Your task to perform on an android device: turn off wifi Image 0: 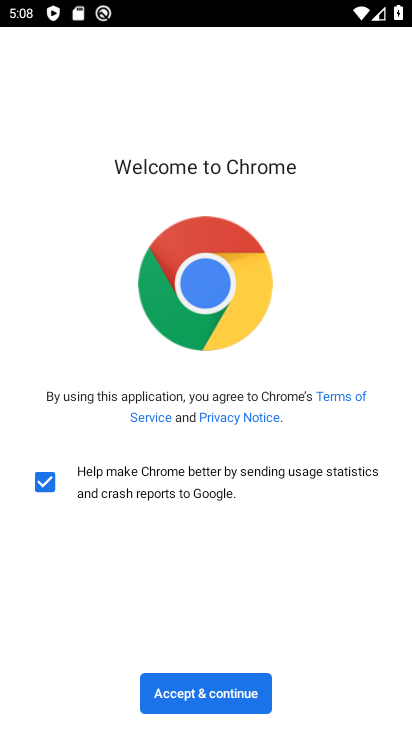
Step 0: press back button
Your task to perform on an android device: turn off wifi Image 1: 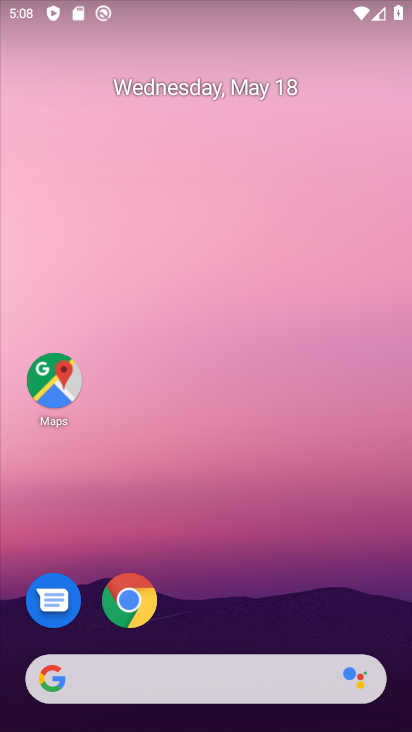
Step 1: drag from (235, 576) to (232, 118)
Your task to perform on an android device: turn off wifi Image 2: 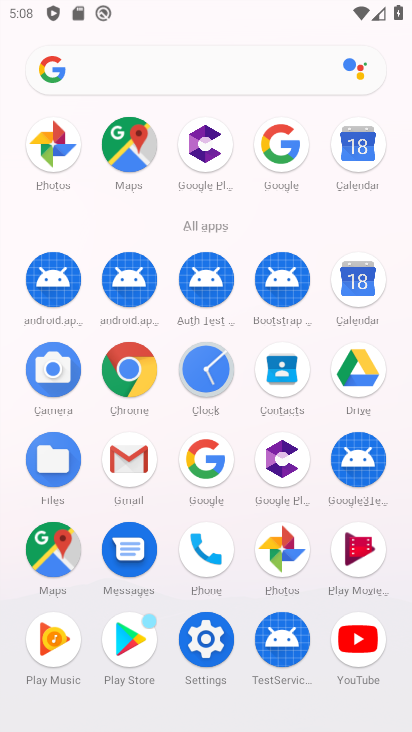
Step 2: click (203, 639)
Your task to perform on an android device: turn off wifi Image 3: 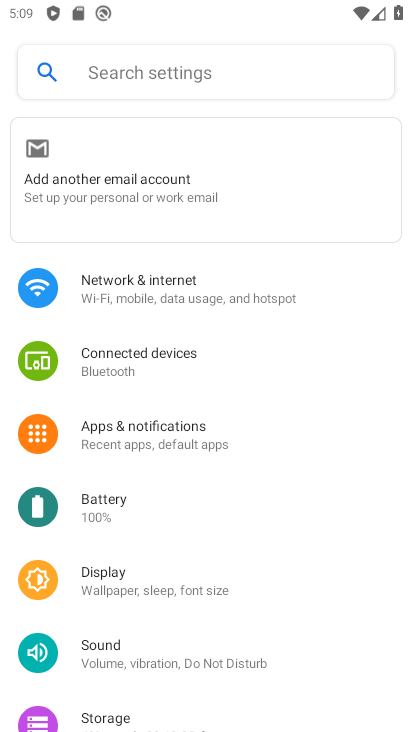
Step 3: click (146, 292)
Your task to perform on an android device: turn off wifi Image 4: 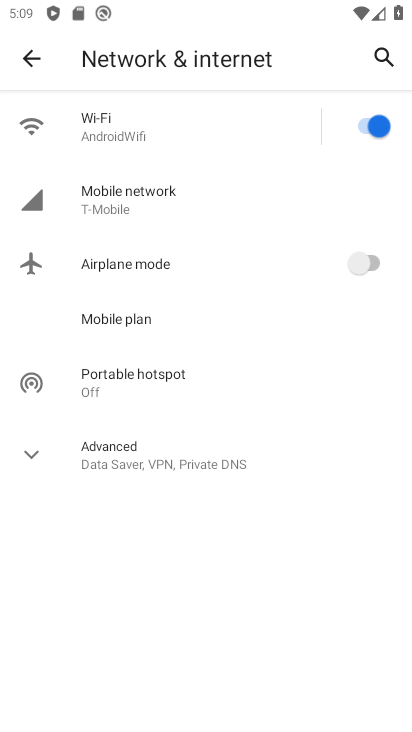
Step 4: click (378, 134)
Your task to perform on an android device: turn off wifi Image 5: 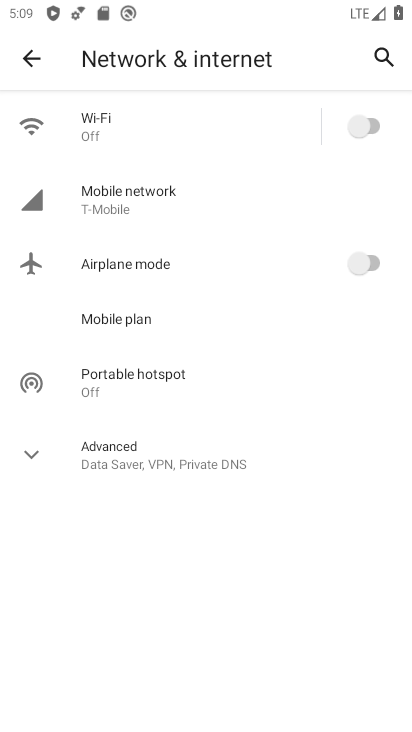
Step 5: task complete